Your task to perform on an android device: turn off data saver in the chrome app Image 0: 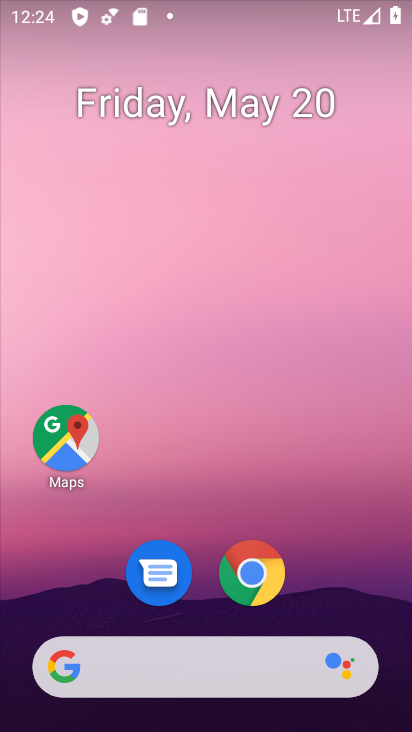
Step 0: drag from (206, 612) to (292, 90)
Your task to perform on an android device: turn off data saver in the chrome app Image 1: 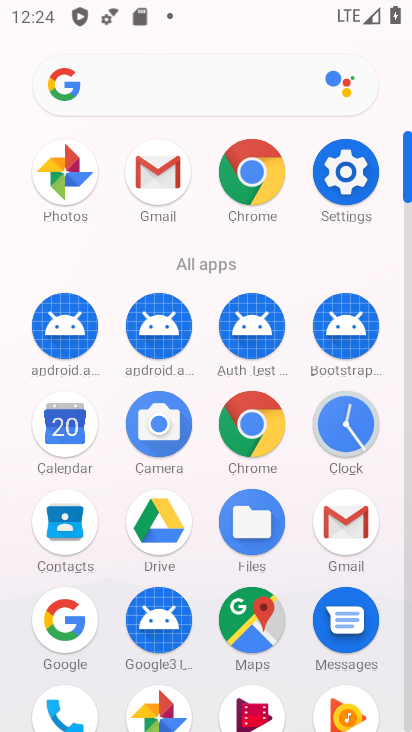
Step 1: click (266, 443)
Your task to perform on an android device: turn off data saver in the chrome app Image 2: 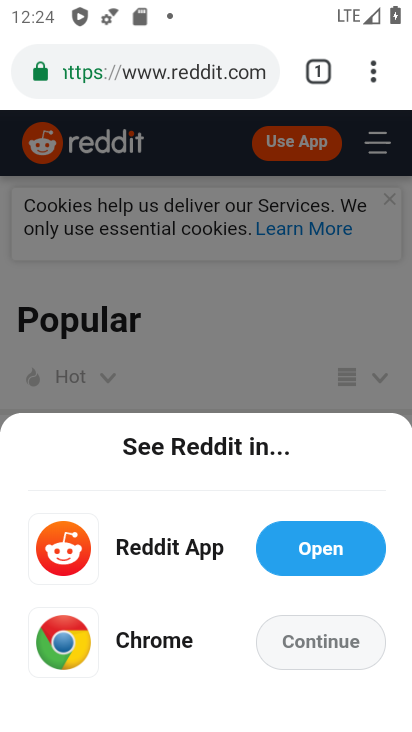
Step 2: click (375, 84)
Your task to perform on an android device: turn off data saver in the chrome app Image 3: 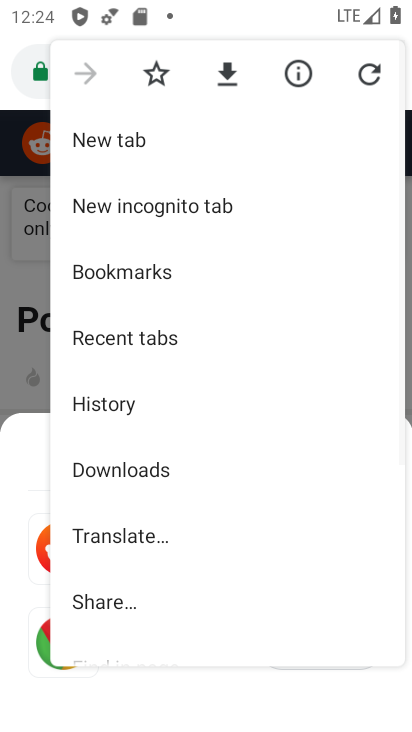
Step 3: drag from (147, 545) to (220, 184)
Your task to perform on an android device: turn off data saver in the chrome app Image 4: 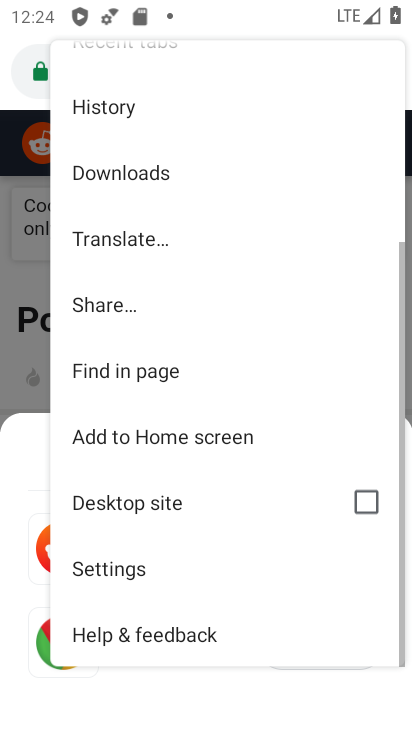
Step 4: click (106, 565)
Your task to perform on an android device: turn off data saver in the chrome app Image 5: 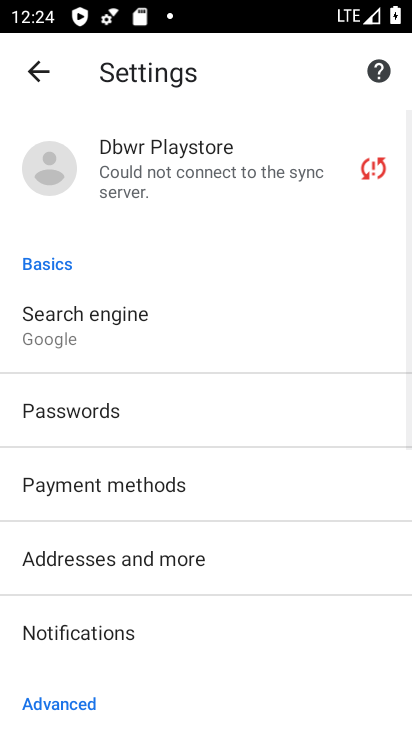
Step 5: drag from (132, 550) to (225, 257)
Your task to perform on an android device: turn off data saver in the chrome app Image 6: 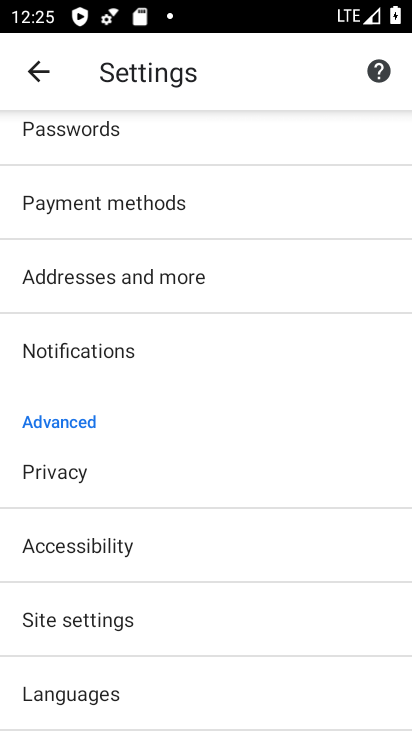
Step 6: drag from (93, 647) to (122, 449)
Your task to perform on an android device: turn off data saver in the chrome app Image 7: 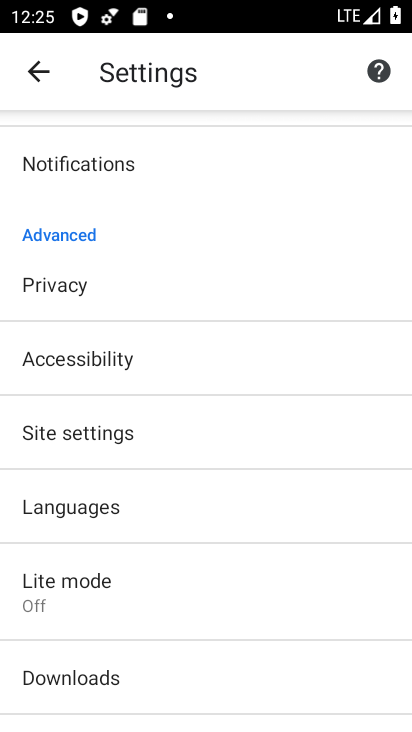
Step 7: click (111, 601)
Your task to perform on an android device: turn off data saver in the chrome app Image 8: 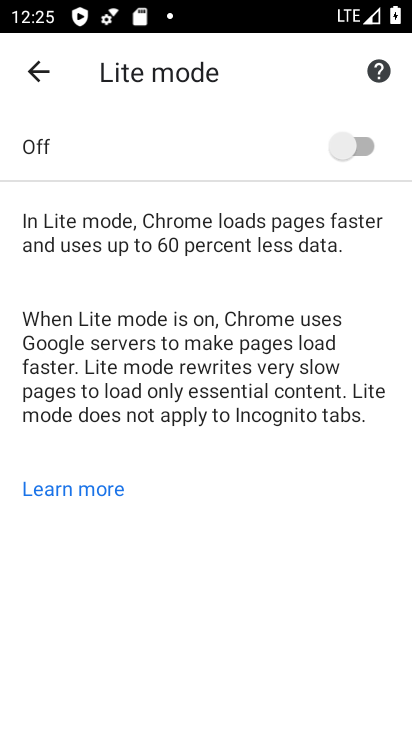
Step 8: task complete